Your task to perform on an android device: Open Google Chrome and open the bookmarks view Image 0: 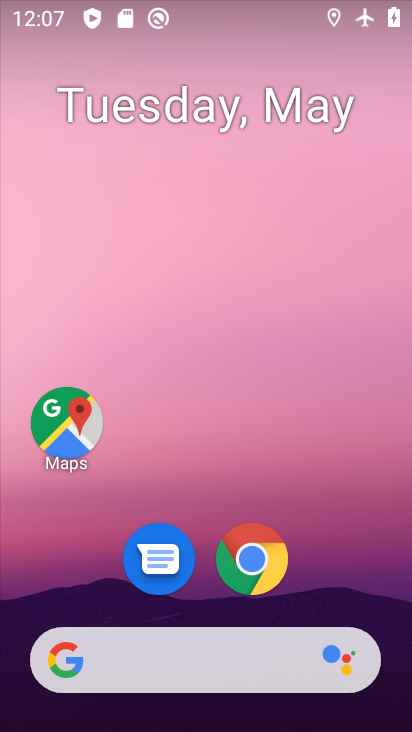
Step 0: click (252, 567)
Your task to perform on an android device: Open Google Chrome and open the bookmarks view Image 1: 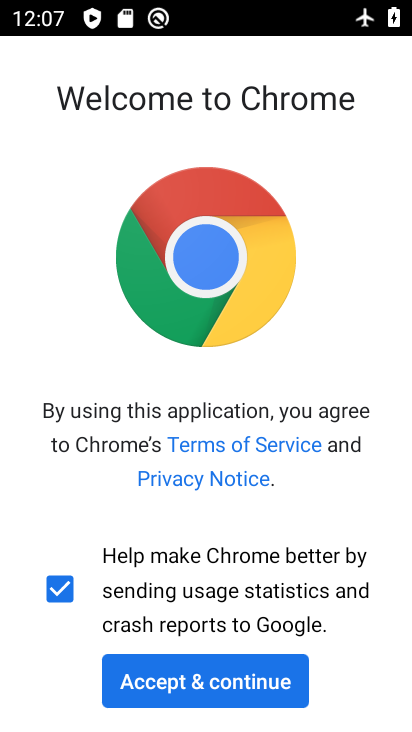
Step 1: click (239, 686)
Your task to perform on an android device: Open Google Chrome and open the bookmarks view Image 2: 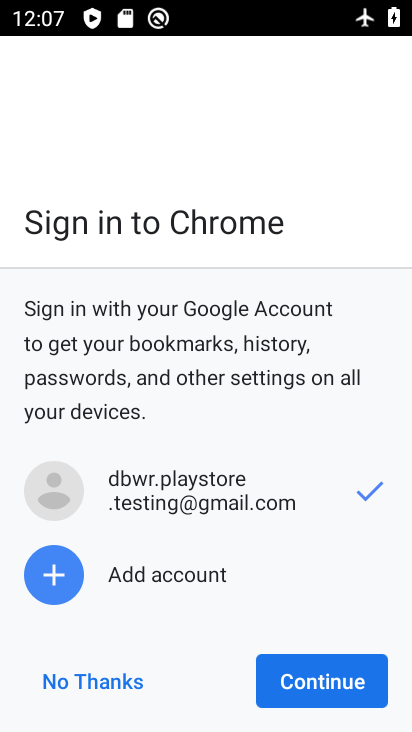
Step 2: click (313, 685)
Your task to perform on an android device: Open Google Chrome and open the bookmarks view Image 3: 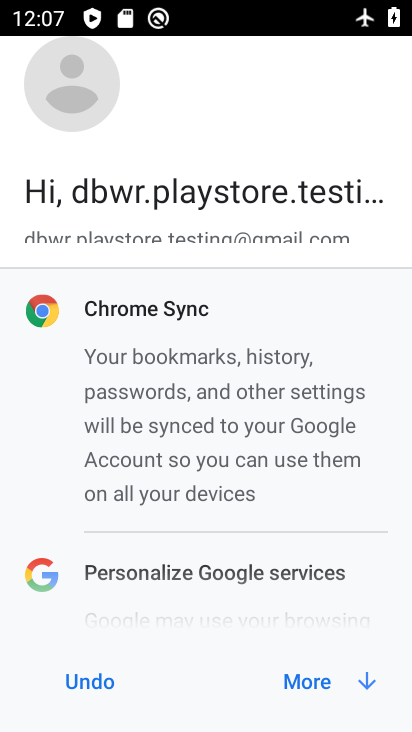
Step 3: click (316, 682)
Your task to perform on an android device: Open Google Chrome and open the bookmarks view Image 4: 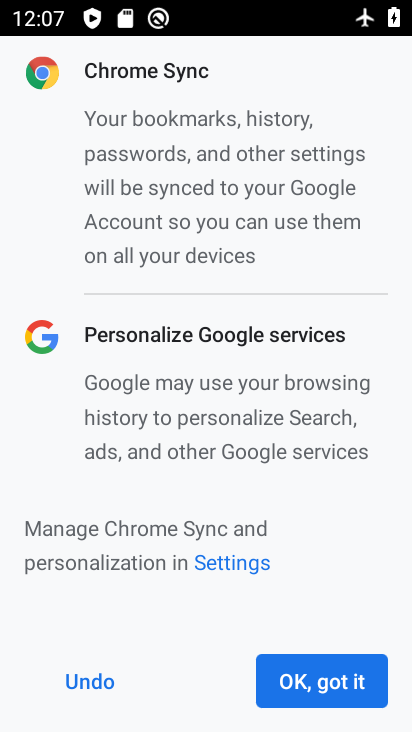
Step 4: click (317, 681)
Your task to perform on an android device: Open Google Chrome and open the bookmarks view Image 5: 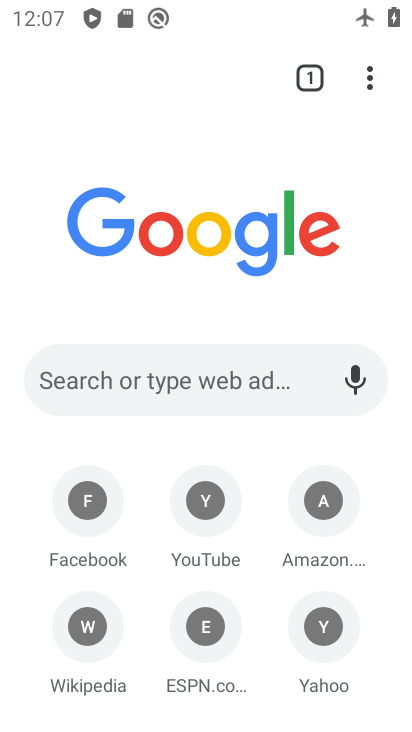
Step 5: task complete